Your task to perform on an android device: turn off translation in the chrome app Image 0: 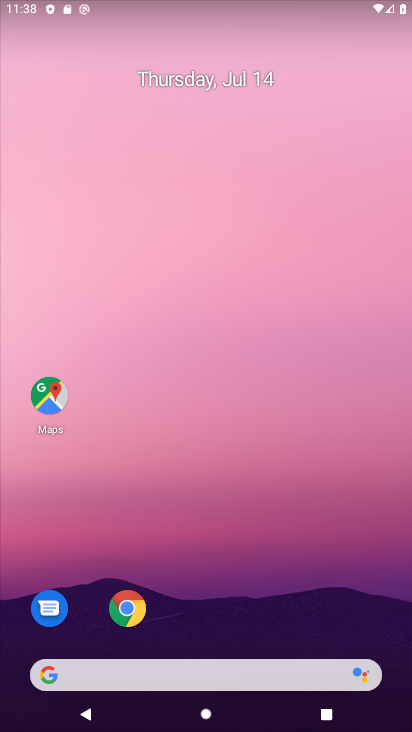
Step 0: click (132, 610)
Your task to perform on an android device: turn off translation in the chrome app Image 1: 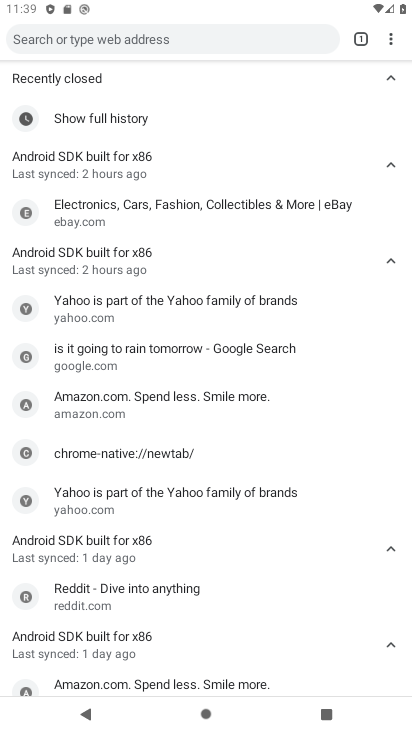
Step 1: press back button
Your task to perform on an android device: turn off translation in the chrome app Image 2: 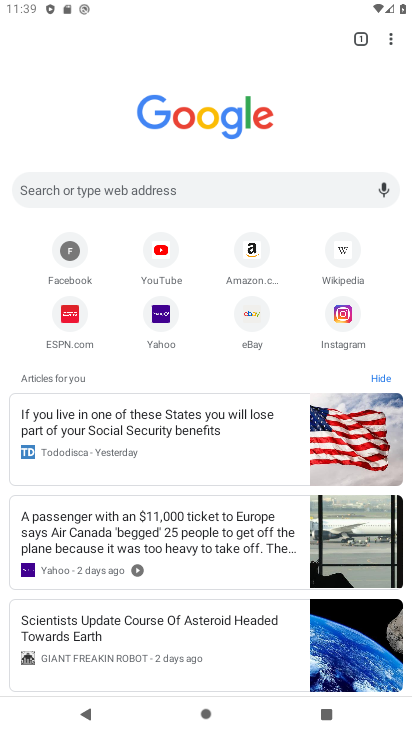
Step 2: click (386, 34)
Your task to perform on an android device: turn off translation in the chrome app Image 3: 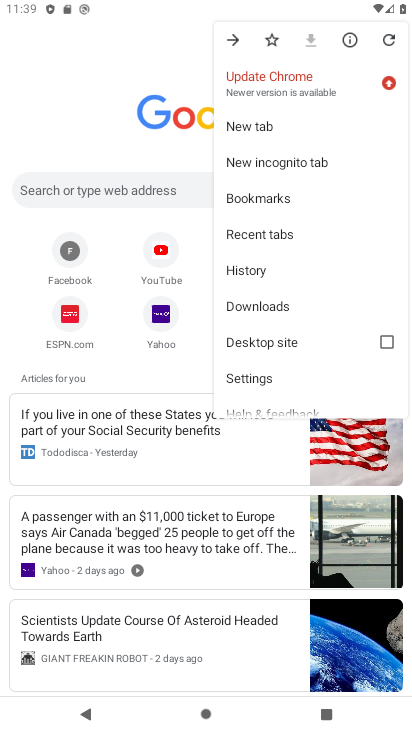
Step 3: click (255, 376)
Your task to perform on an android device: turn off translation in the chrome app Image 4: 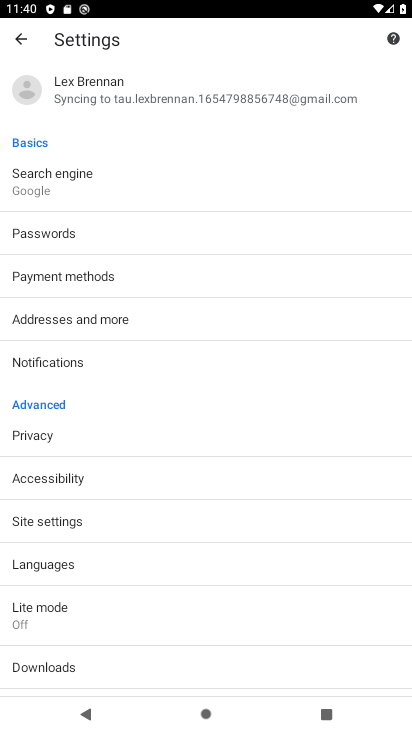
Step 4: click (44, 566)
Your task to perform on an android device: turn off translation in the chrome app Image 5: 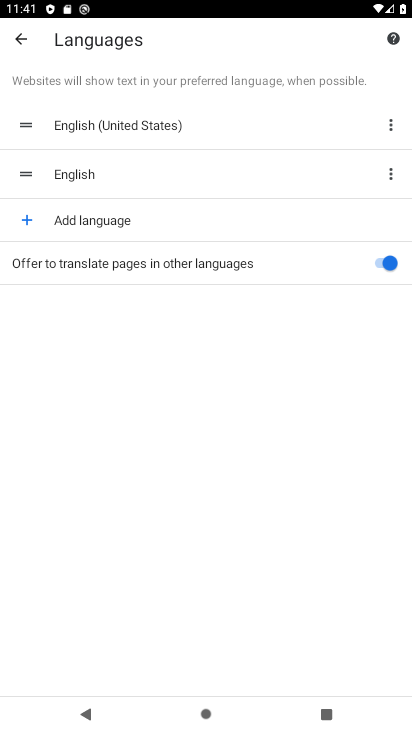
Step 5: click (377, 264)
Your task to perform on an android device: turn off translation in the chrome app Image 6: 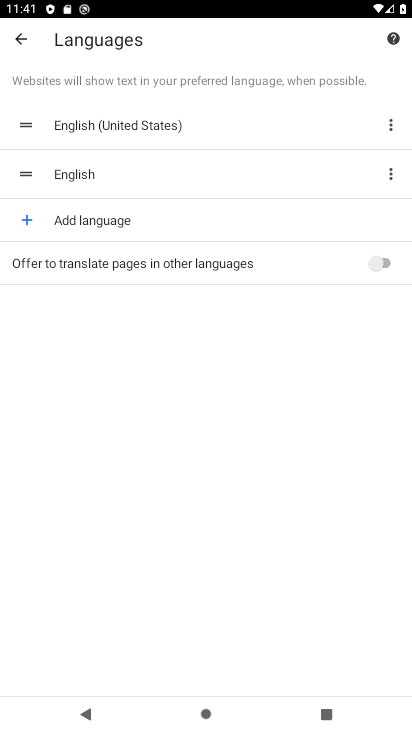
Step 6: task complete